Your task to perform on an android device: Go to notification settings Image 0: 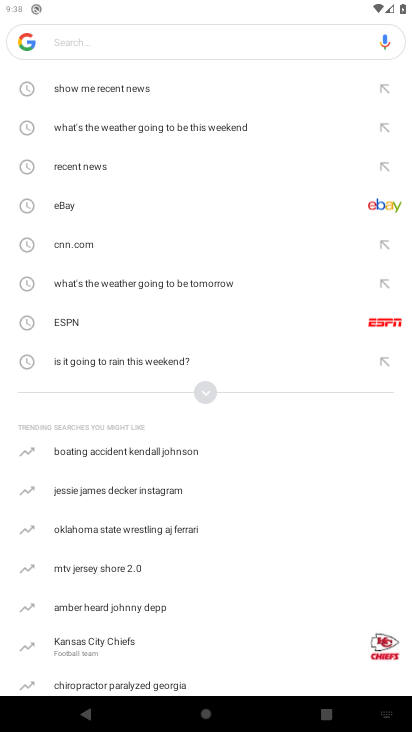
Step 0: press home button
Your task to perform on an android device: Go to notification settings Image 1: 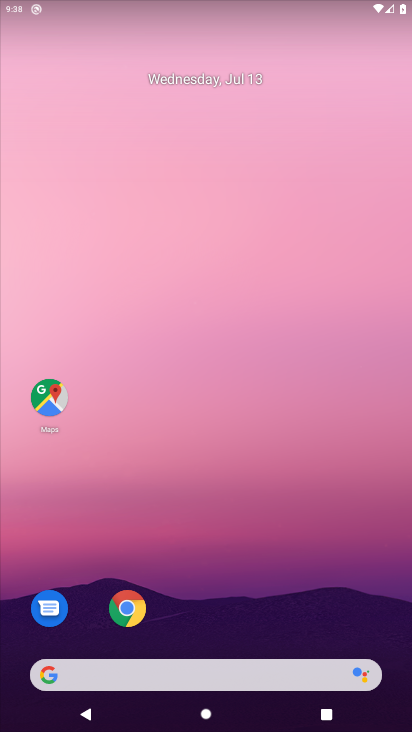
Step 1: drag from (18, 707) to (404, 193)
Your task to perform on an android device: Go to notification settings Image 2: 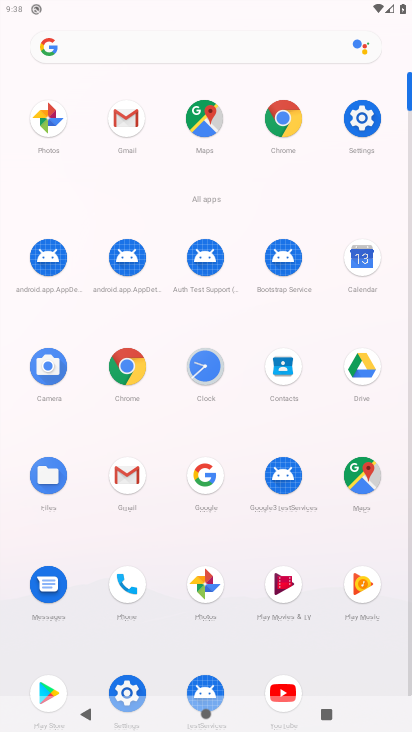
Step 2: click (133, 683)
Your task to perform on an android device: Go to notification settings Image 3: 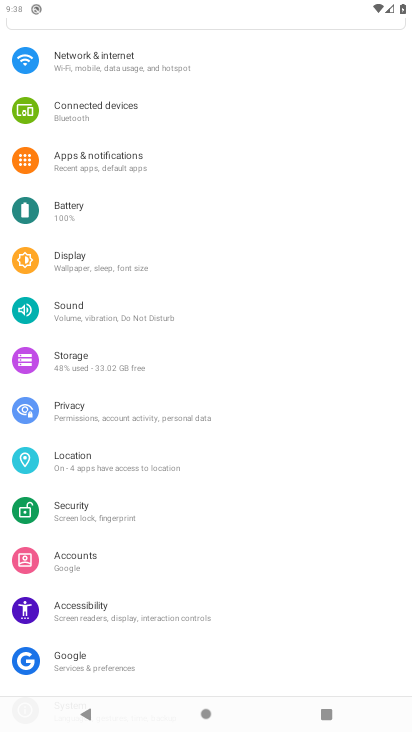
Step 3: click (115, 155)
Your task to perform on an android device: Go to notification settings Image 4: 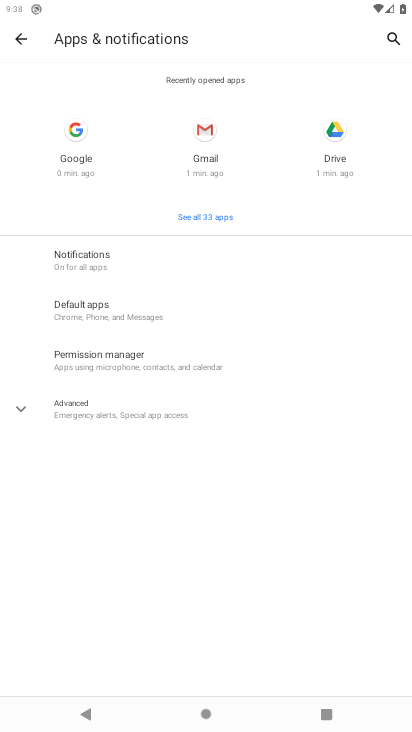
Step 4: click (75, 276)
Your task to perform on an android device: Go to notification settings Image 5: 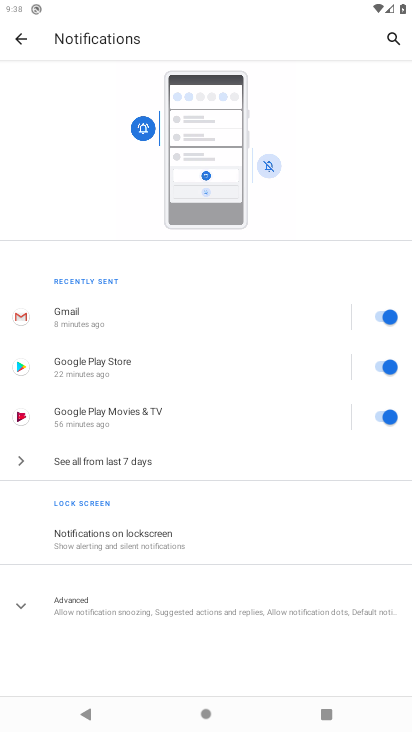
Step 5: task complete